Your task to perform on an android device: Add lg ultragear to the cart on ebay, then select checkout. Image 0: 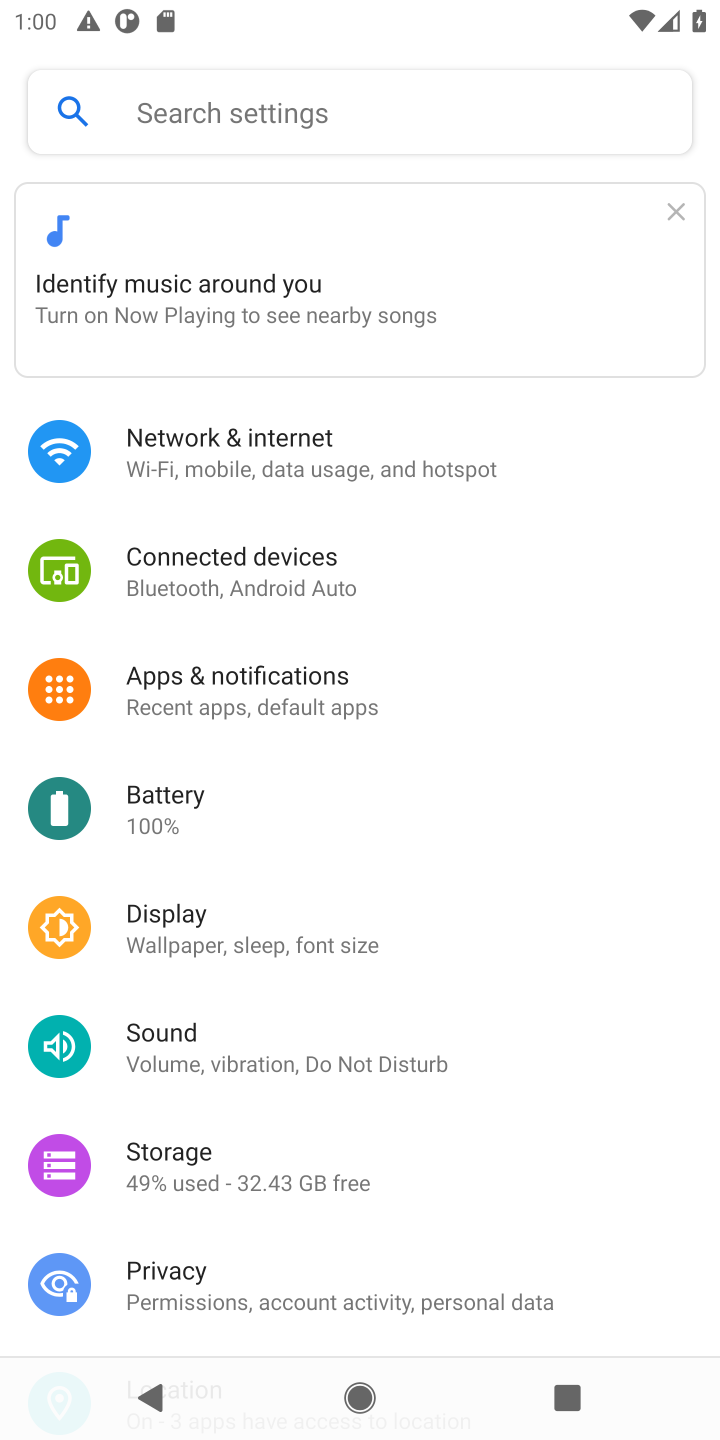
Step 0: press home button
Your task to perform on an android device: Add lg ultragear to the cart on ebay, then select checkout. Image 1: 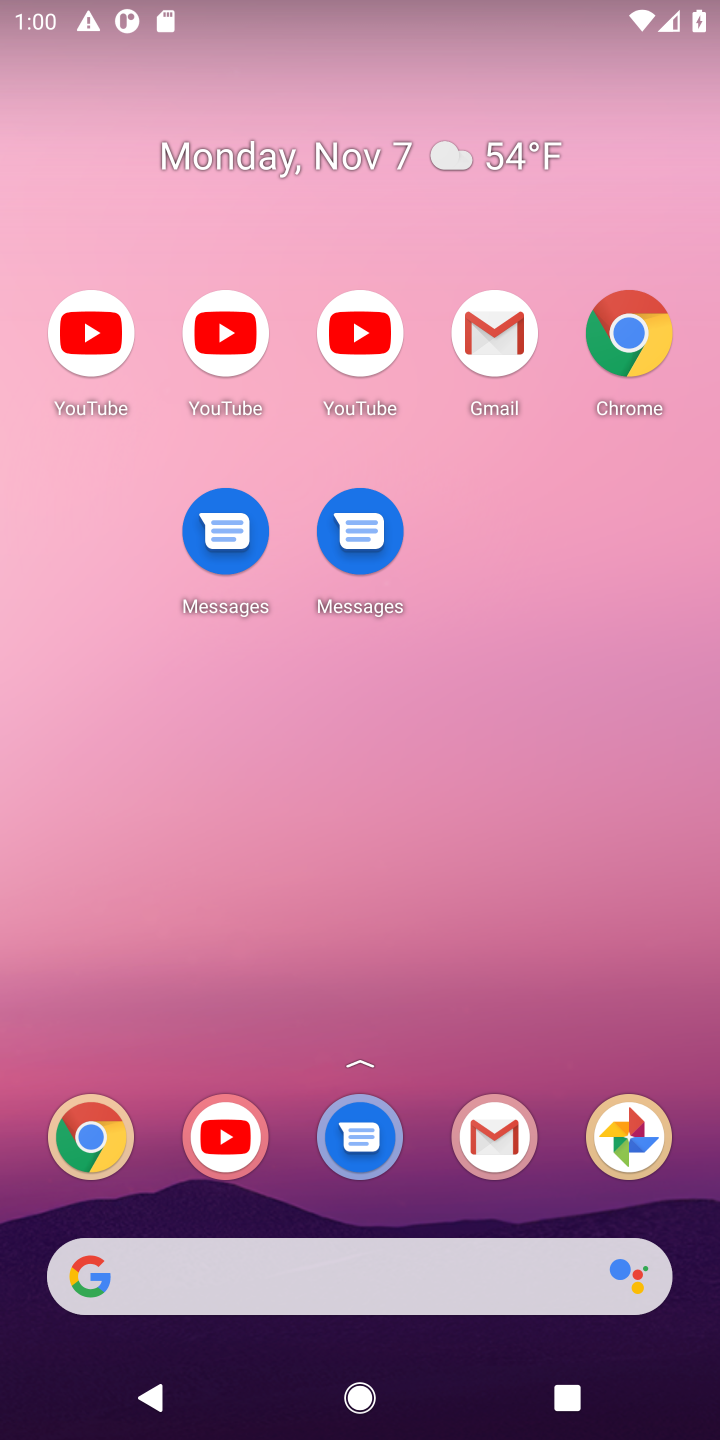
Step 1: drag from (416, 1210) to (493, 166)
Your task to perform on an android device: Add lg ultragear to the cart on ebay, then select checkout. Image 2: 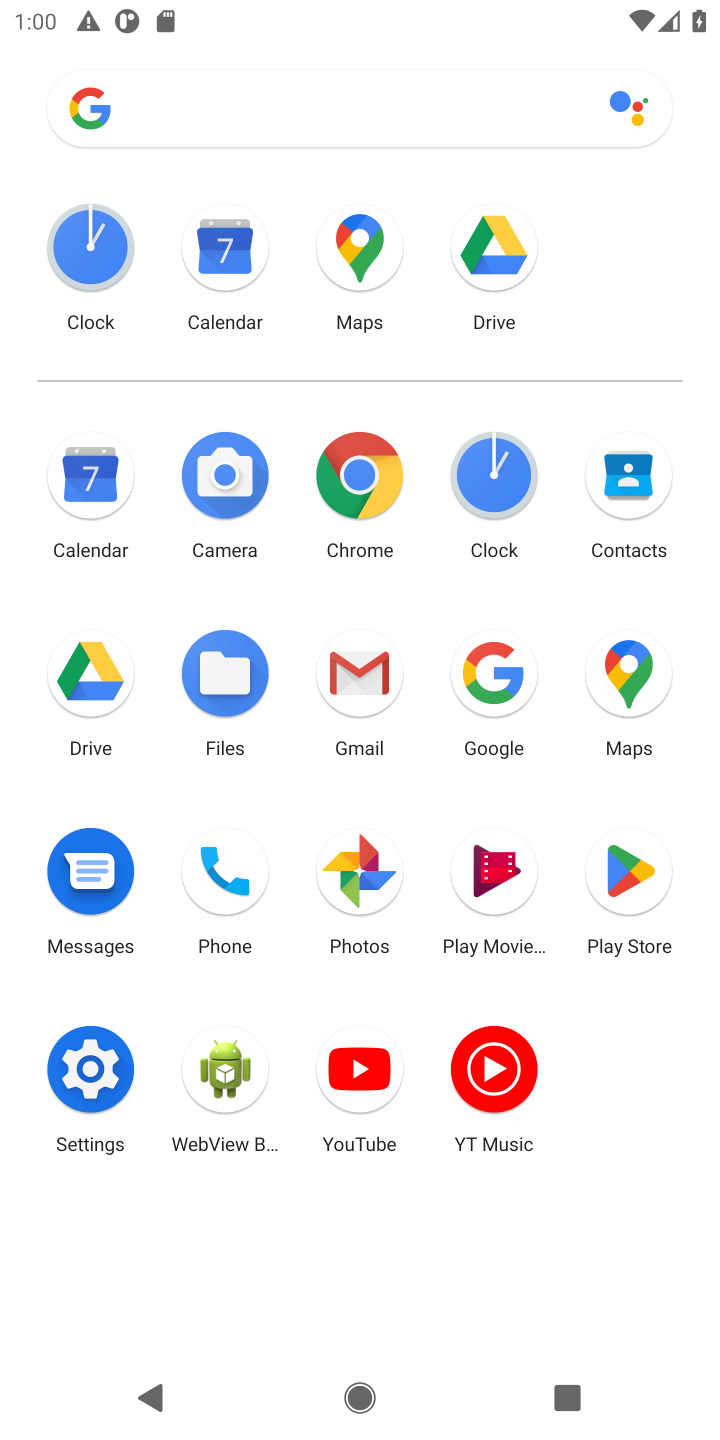
Step 2: click (359, 477)
Your task to perform on an android device: Add lg ultragear to the cart on ebay, then select checkout. Image 3: 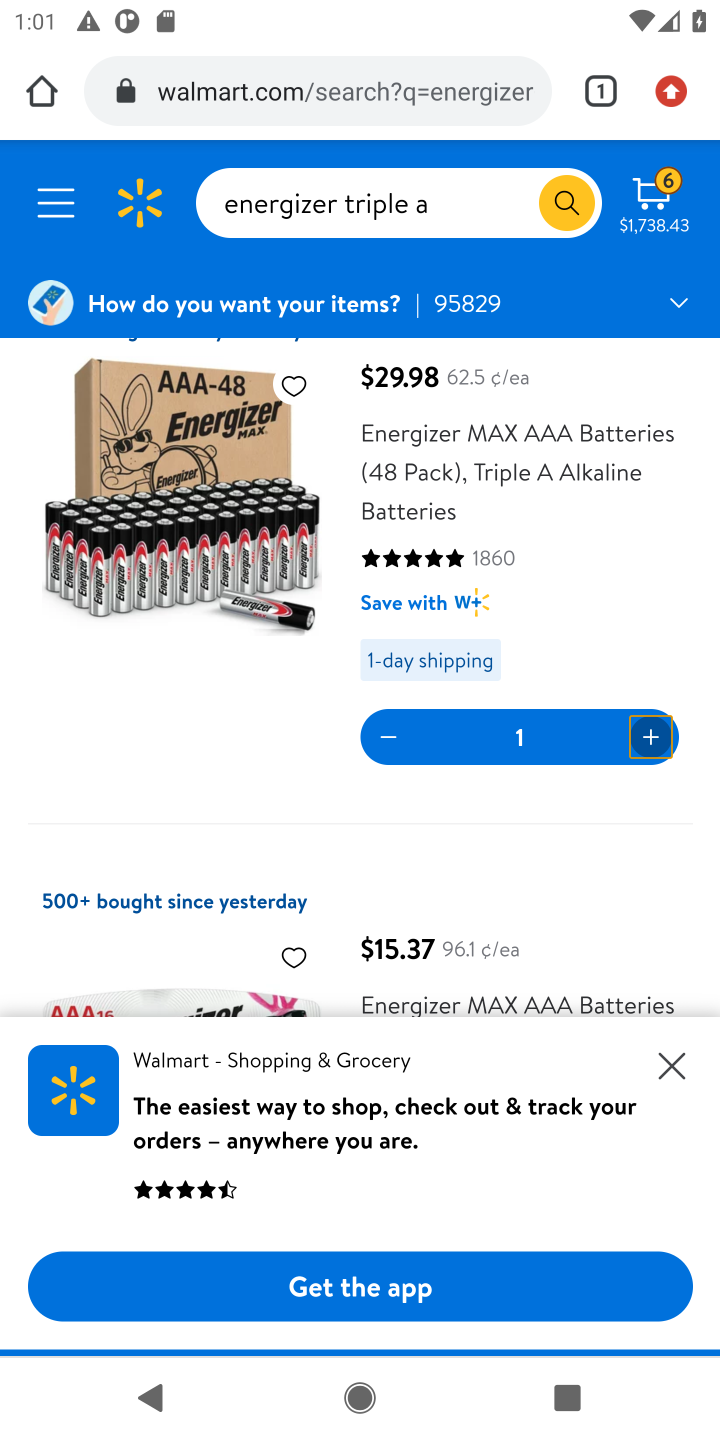
Step 3: click (428, 106)
Your task to perform on an android device: Add lg ultragear to the cart on ebay, then select checkout. Image 4: 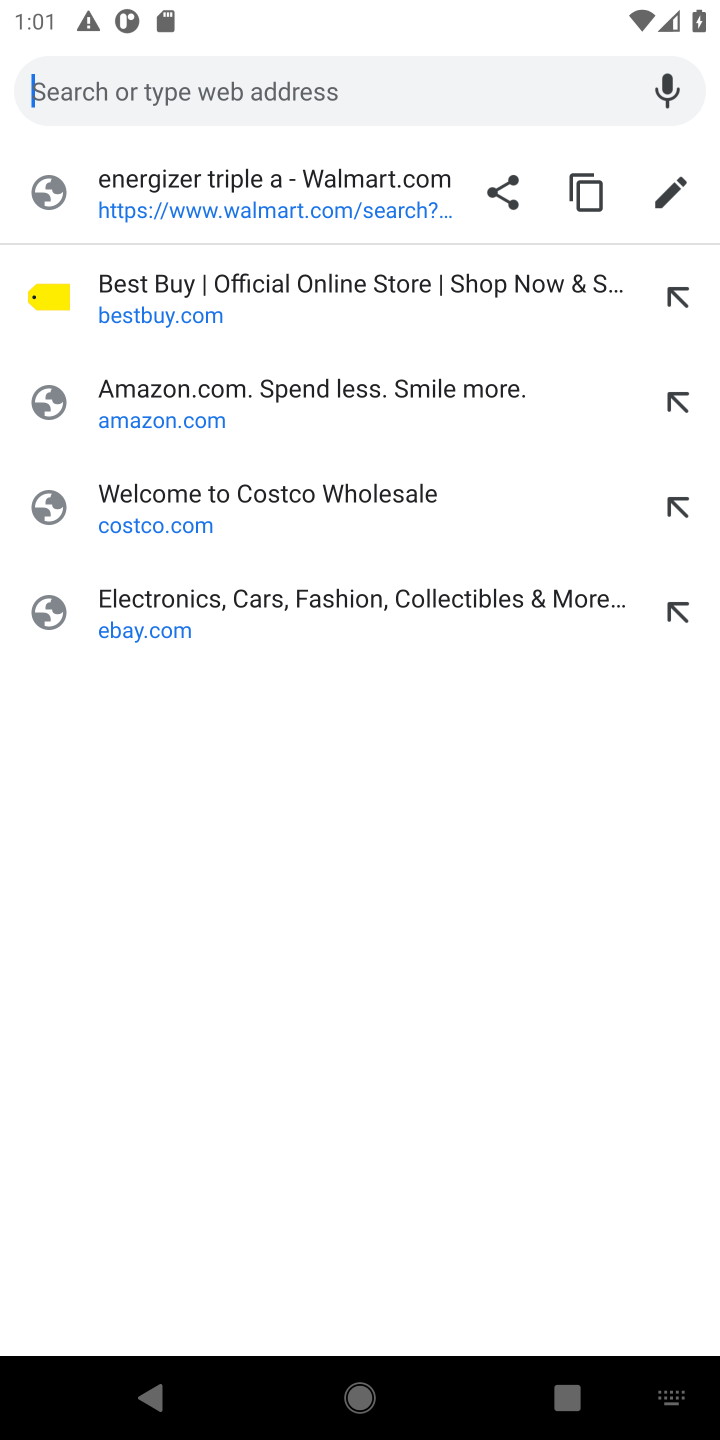
Step 4: click (235, 82)
Your task to perform on an android device: Add lg ultragear to the cart on ebay, then select checkout. Image 5: 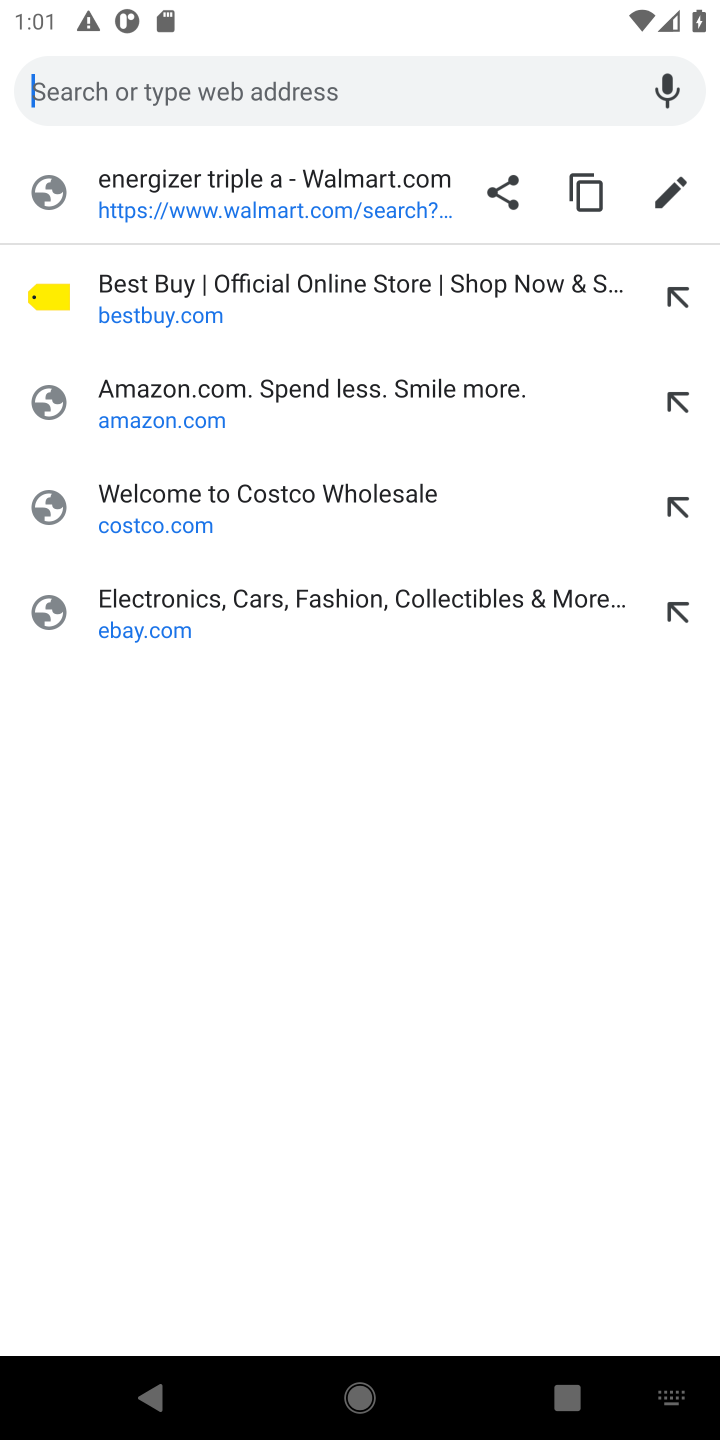
Step 5: type "ebay.com"
Your task to perform on an android device: Add lg ultragear to the cart on ebay, then select checkout. Image 6: 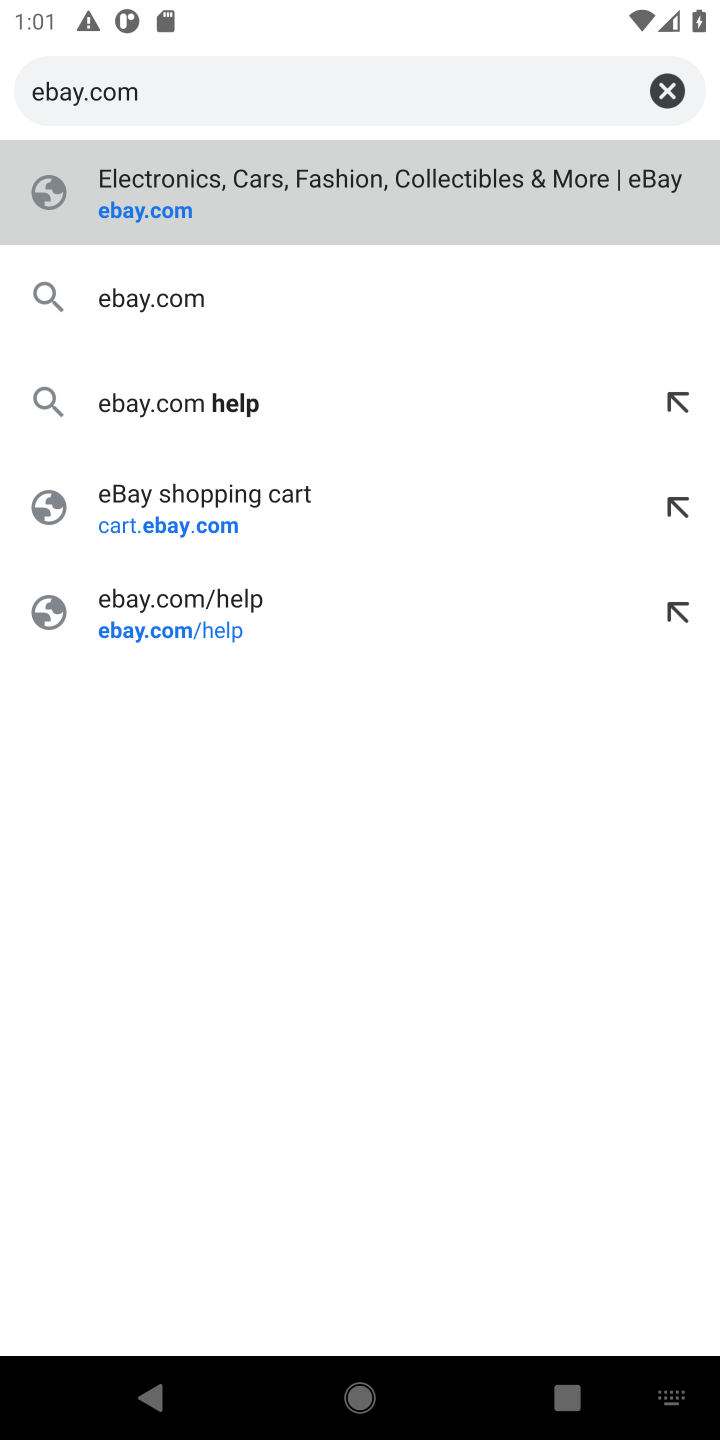
Step 6: press enter
Your task to perform on an android device: Add lg ultragear to the cart on ebay, then select checkout. Image 7: 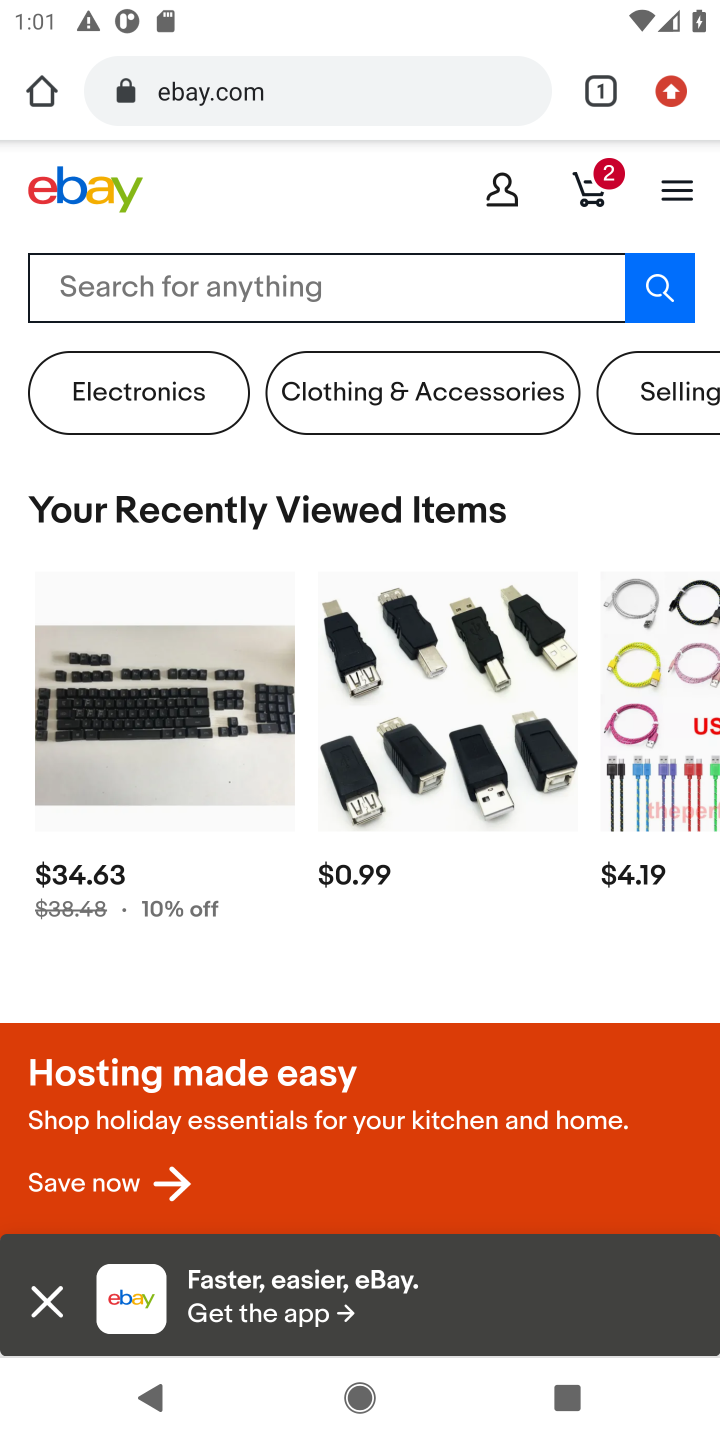
Step 7: click (378, 283)
Your task to perform on an android device: Add lg ultragear to the cart on ebay, then select checkout. Image 8: 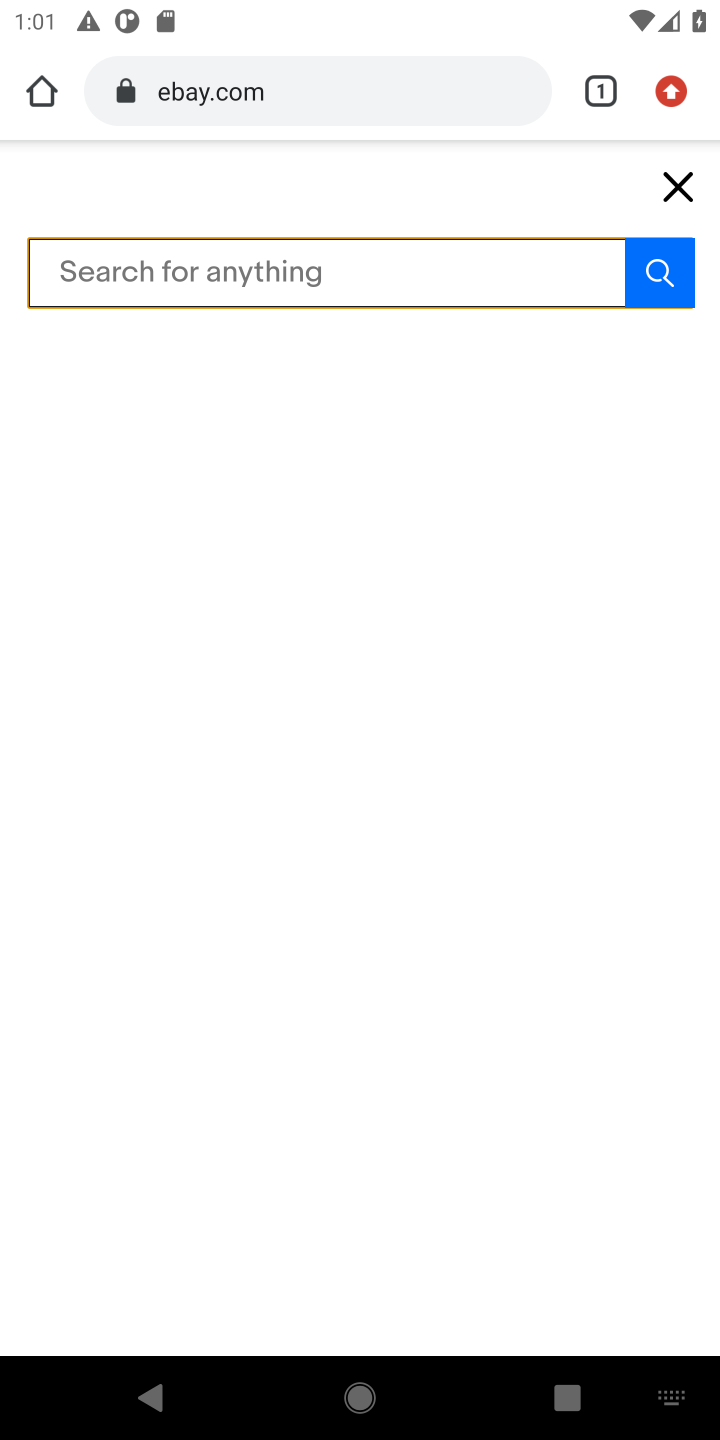
Step 8: type "lg ultragrear"
Your task to perform on an android device: Add lg ultragear to the cart on ebay, then select checkout. Image 9: 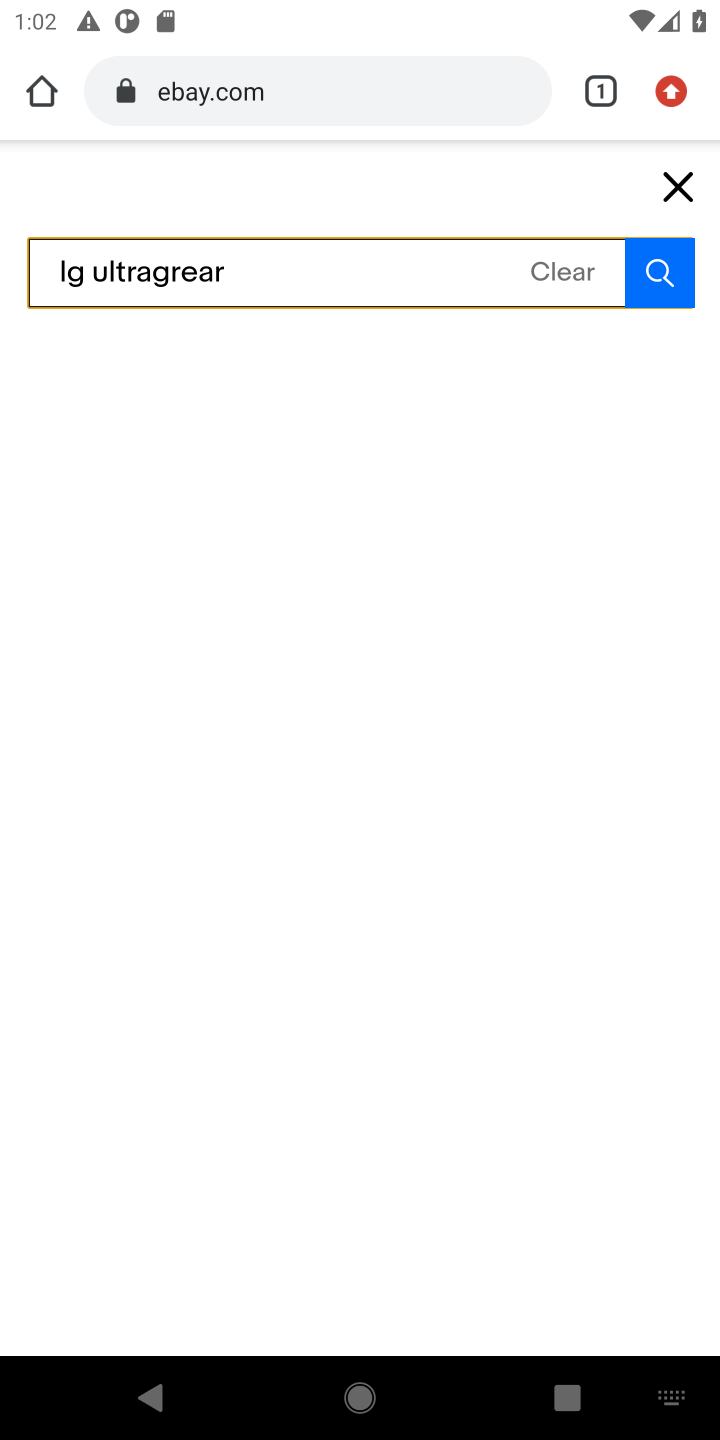
Step 9: press enter
Your task to perform on an android device: Add lg ultragear to the cart on ebay, then select checkout. Image 10: 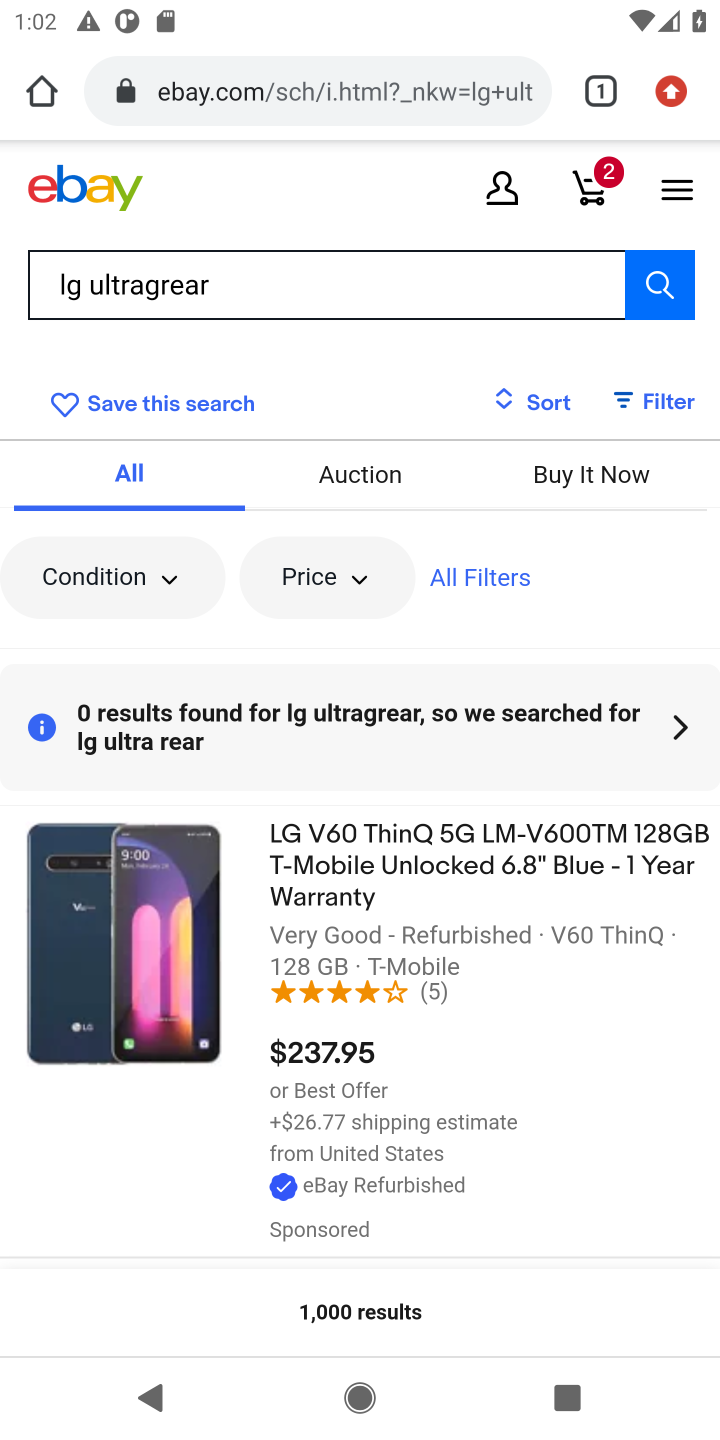
Step 10: task complete